Your task to perform on an android device: Search for razer naga on target.com, select the first entry, and add it to the cart. Image 0: 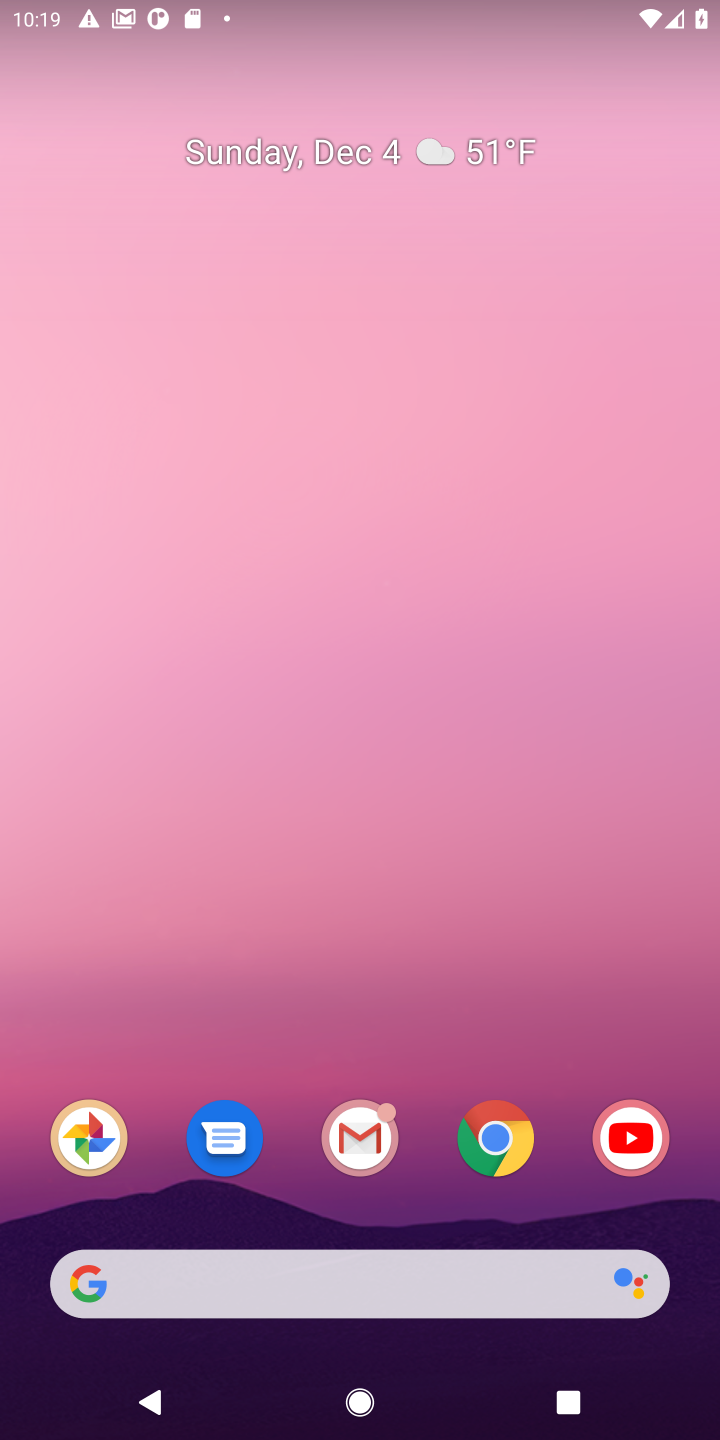
Step 0: click (521, 1132)
Your task to perform on an android device: Search for razer naga on target.com, select the first entry, and add it to the cart. Image 1: 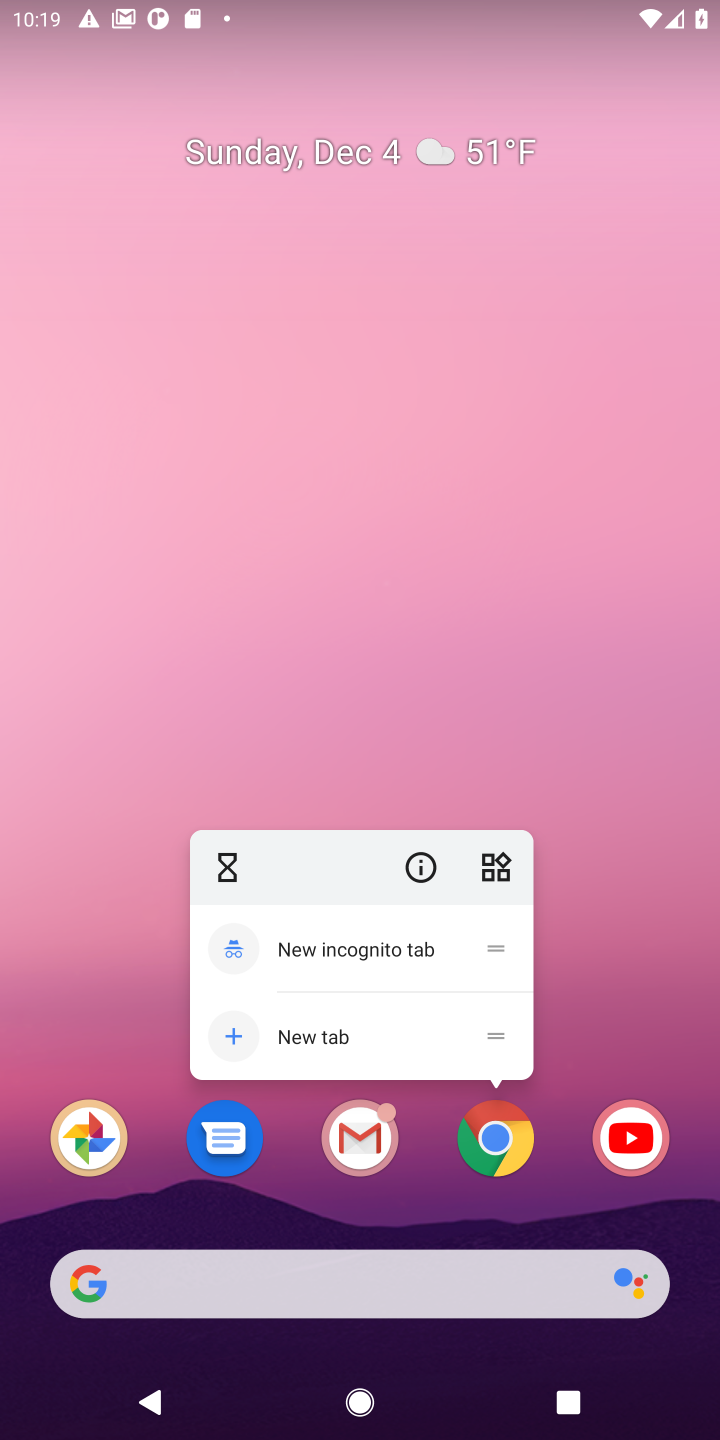
Step 1: click (521, 1132)
Your task to perform on an android device: Search for razer naga on target.com, select the first entry, and add it to the cart. Image 2: 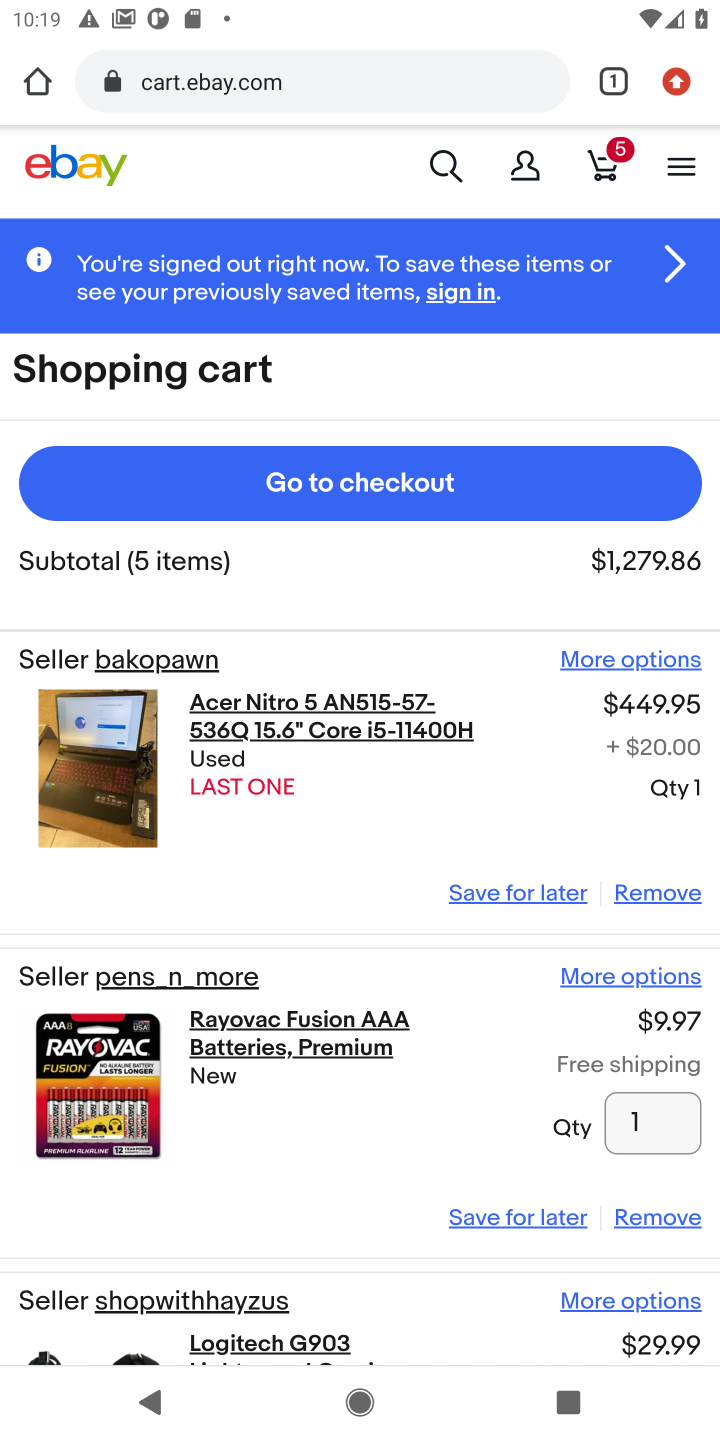
Step 2: click (486, 76)
Your task to perform on an android device: Search for razer naga on target.com, select the first entry, and add it to the cart. Image 3: 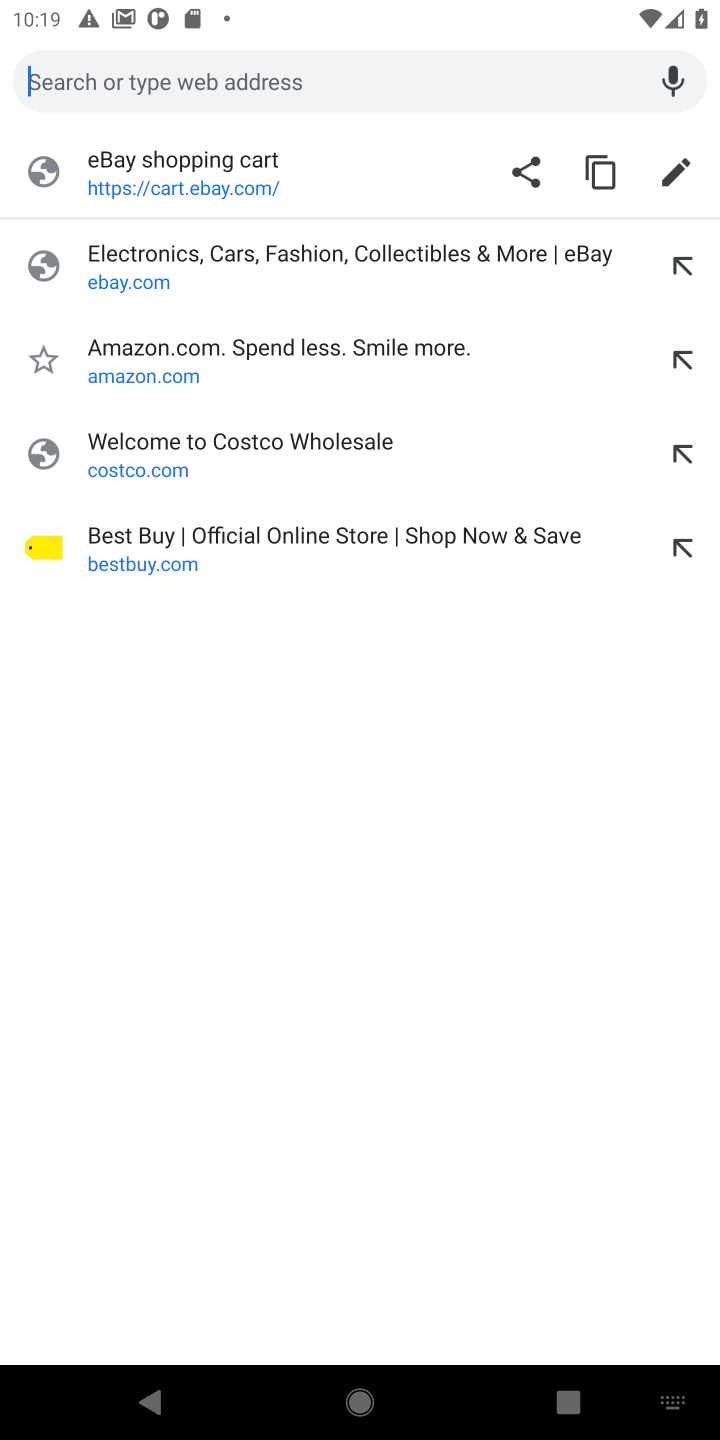
Step 3: click (232, 346)
Your task to perform on an android device: Search for razer naga on target.com, select the first entry, and add it to the cart. Image 4: 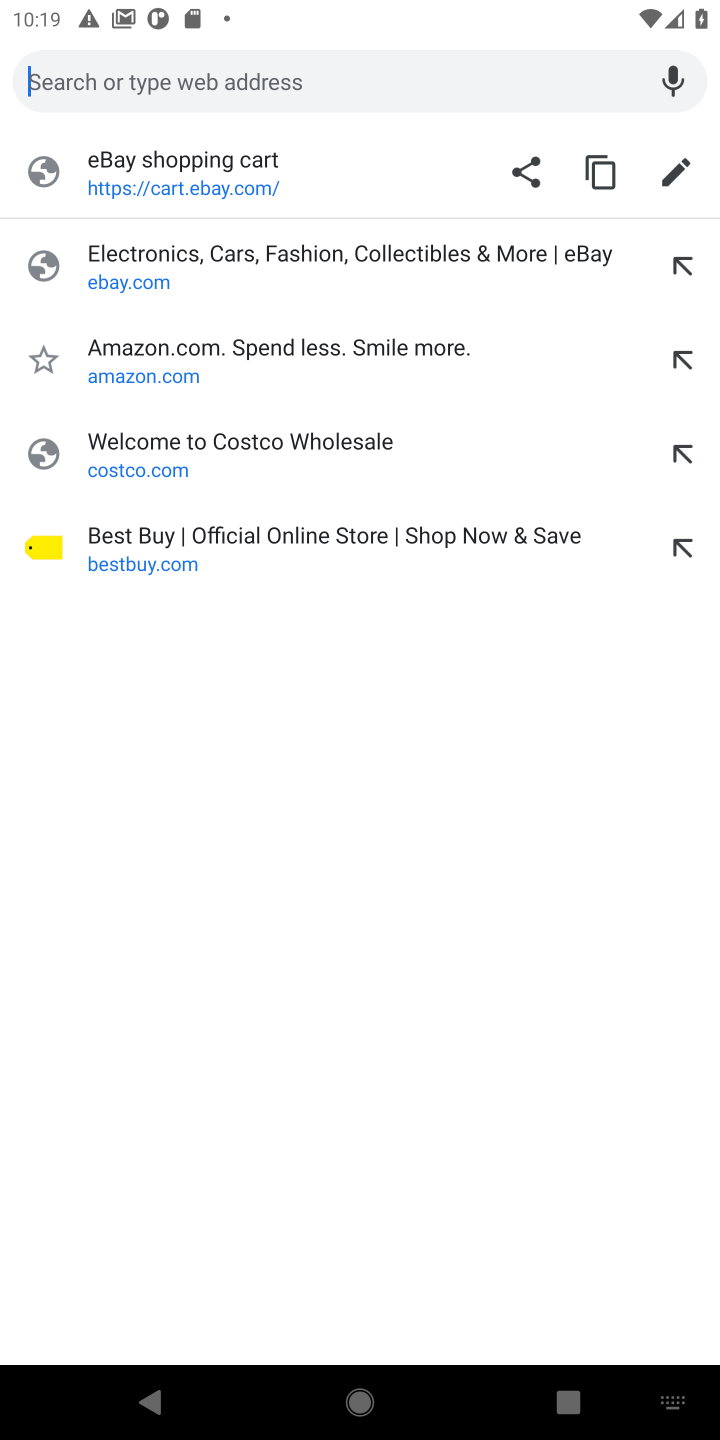
Step 4: type "target.com"
Your task to perform on an android device: Search for razer naga on target.com, select the first entry, and add it to the cart. Image 5: 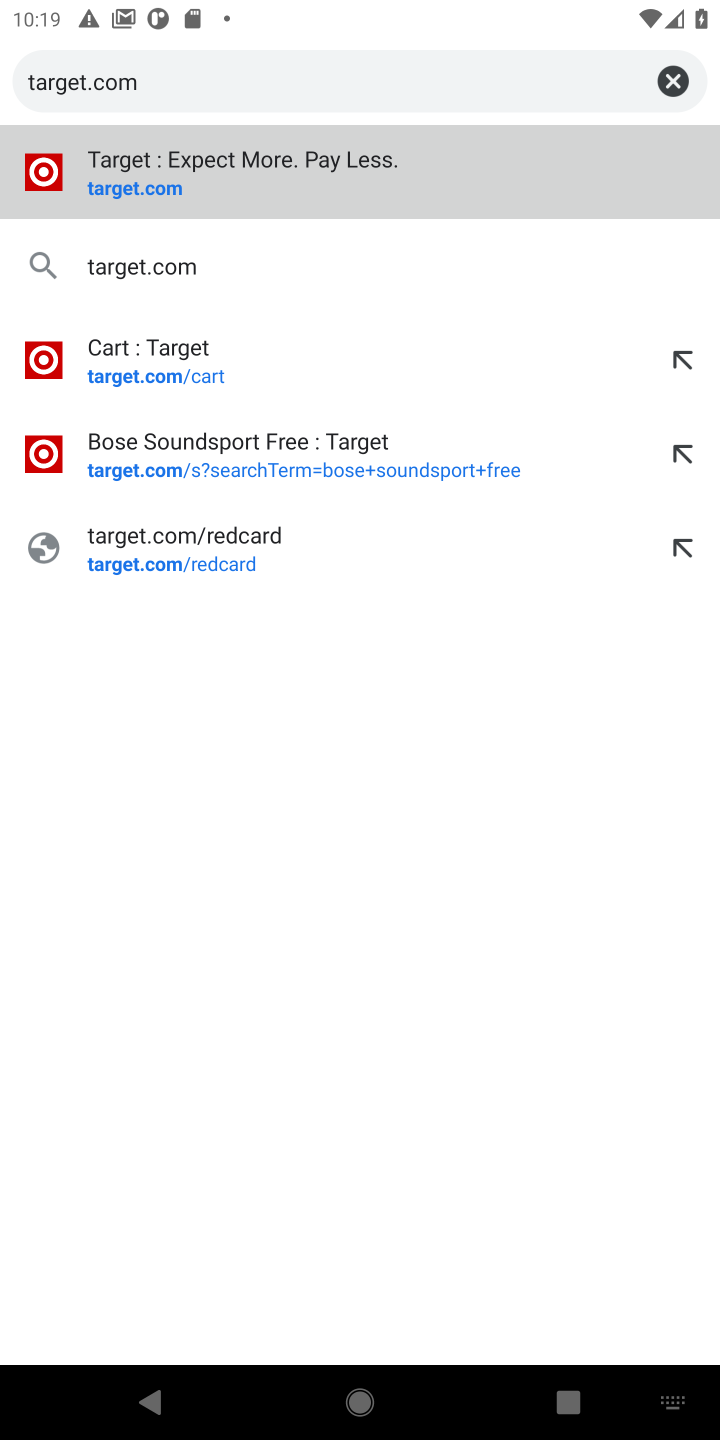
Step 5: press enter
Your task to perform on an android device: Search for razer naga on target.com, select the first entry, and add it to the cart. Image 6: 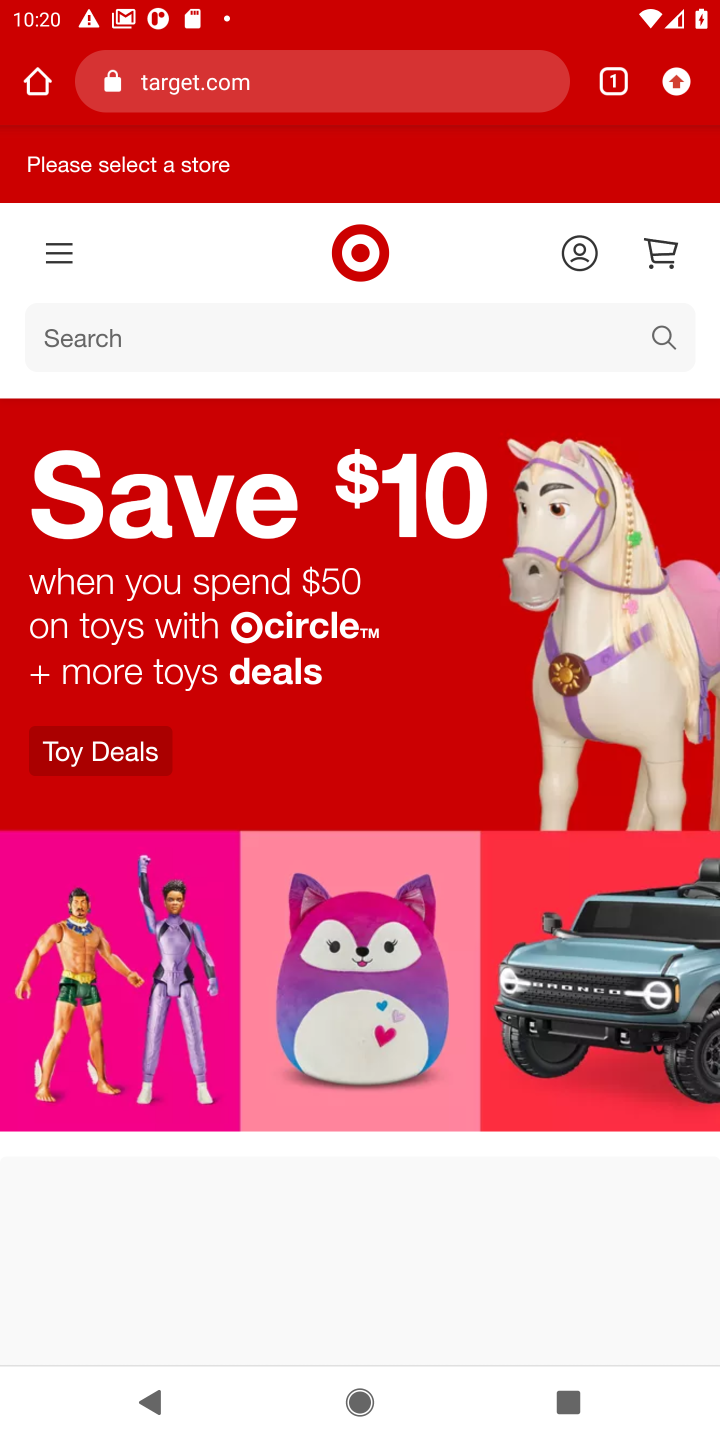
Step 6: click (647, 325)
Your task to perform on an android device: Search for razer naga on target.com, select the first entry, and add it to the cart. Image 7: 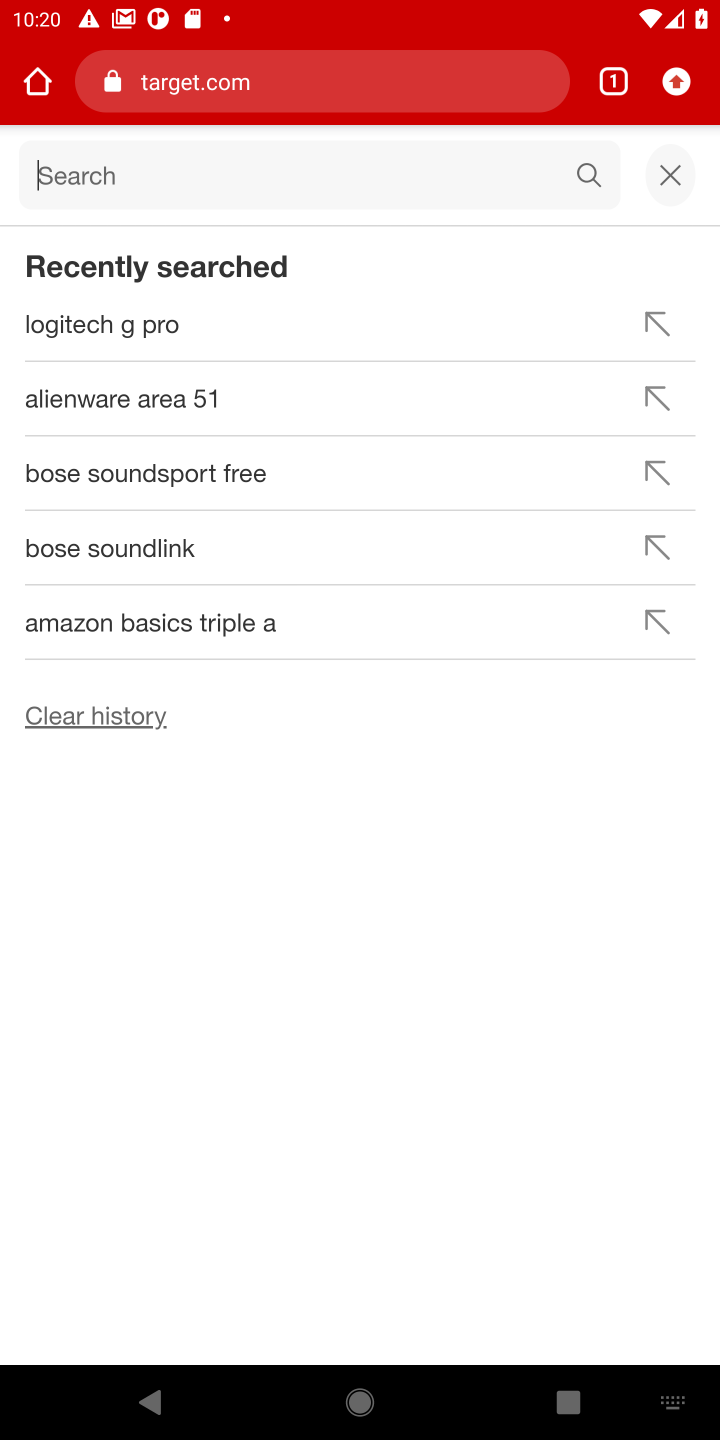
Step 7: type "razer naga"
Your task to perform on an android device: Search for razer naga on target.com, select the first entry, and add it to the cart. Image 8: 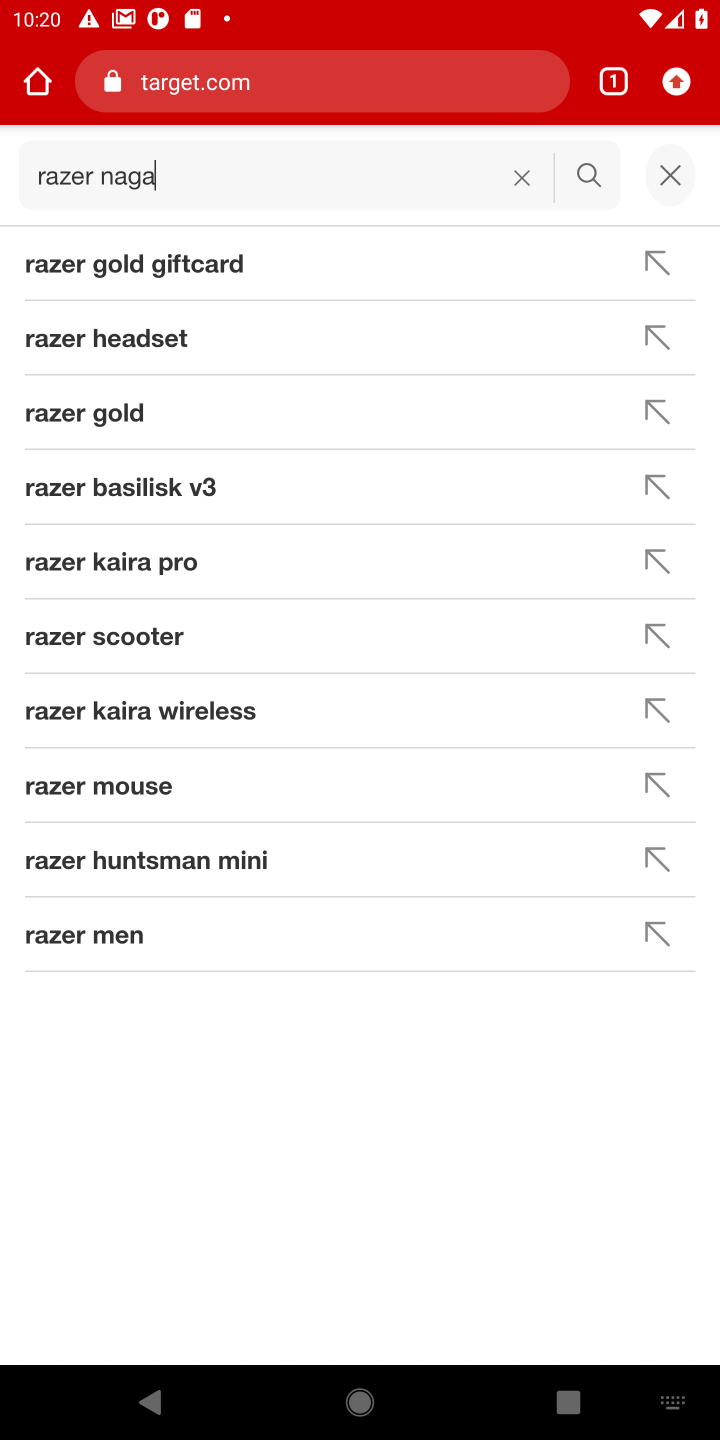
Step 8: press enter
Your task to perform on an android device: Search for razer naga on target.com, select the first entry, and add it to the cart. Image 9: 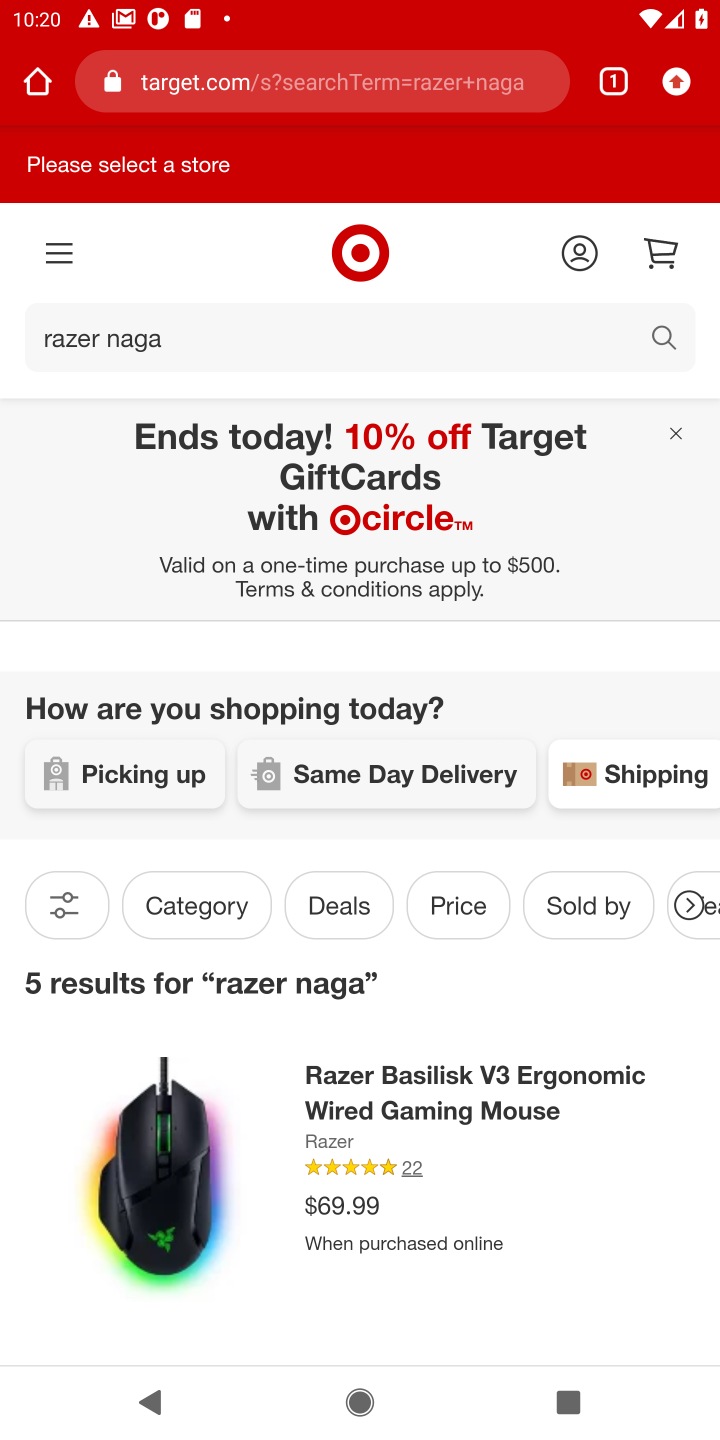
Step 9: task complete